Your task to perform on an android device: turn off translation in the chrome app Image 0: 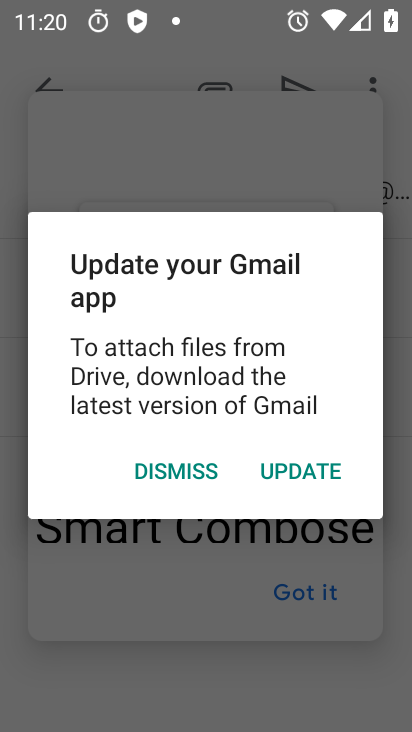
Step 0: click (177, 479)
Your task to perform on an android device: turn off translation in the chrome app Image 1: 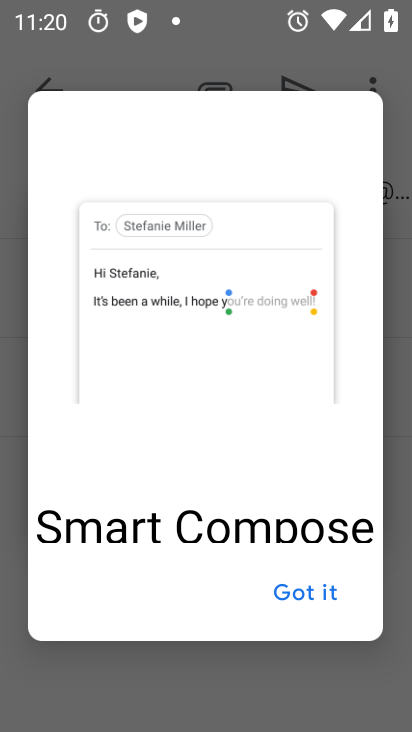
Step 1: click (280, 599)
Your task to perform on an android device: turn off translation in the chrome app Image 2: 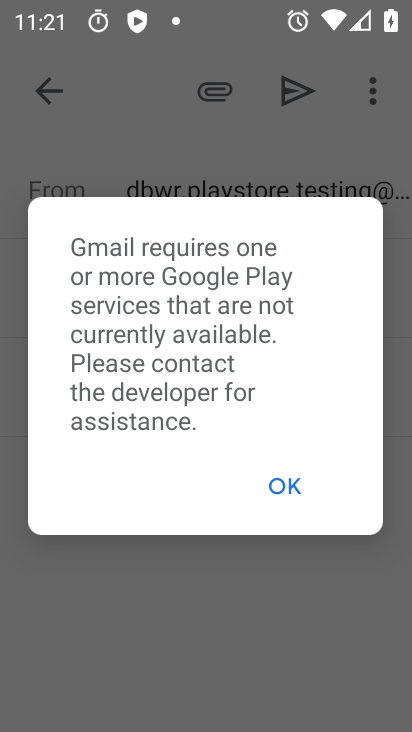
Step 2: click (277, 493)
Your task to perform on an android device: turn off translation in the chrome app Image 3: 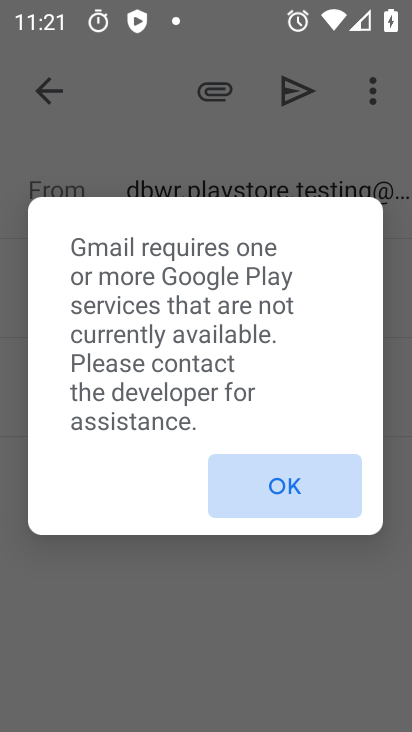
Step 3: click (277, 491)
Your task to perform on an android device: turn off translation in the chrome app Image 4: 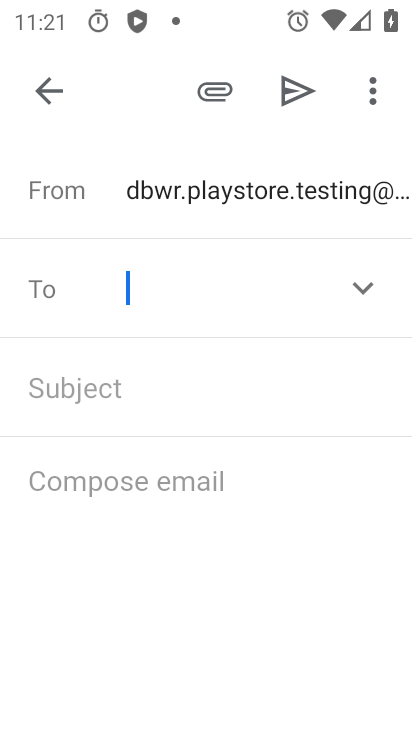
Step 4: click (271, 490)
Your task to perform on an android device: turn off translation in the chrome app Image 5: 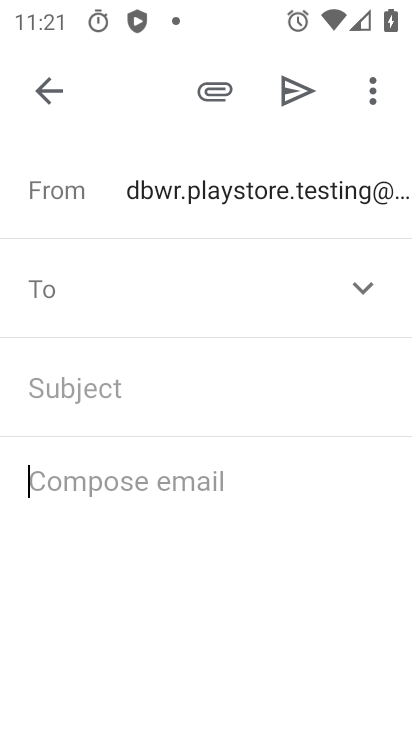
Step 5: click (269, 490)
Your task to perform on an android device: turn off translation in the chrome app Image 6: 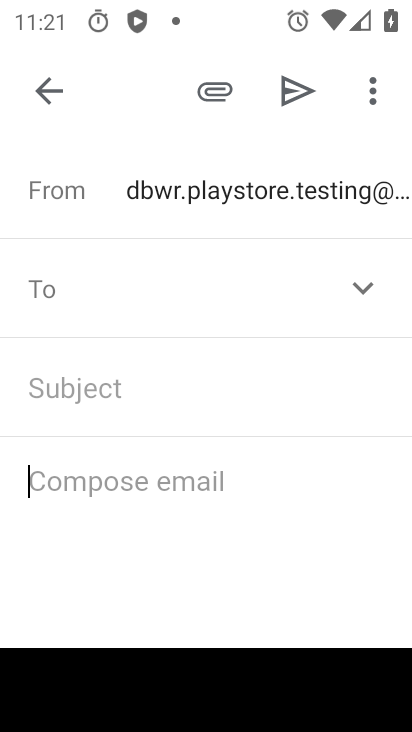
Step 6: click (31, 88)
Your task to perform on an android device: turn off translation in the chrome app Image 7: 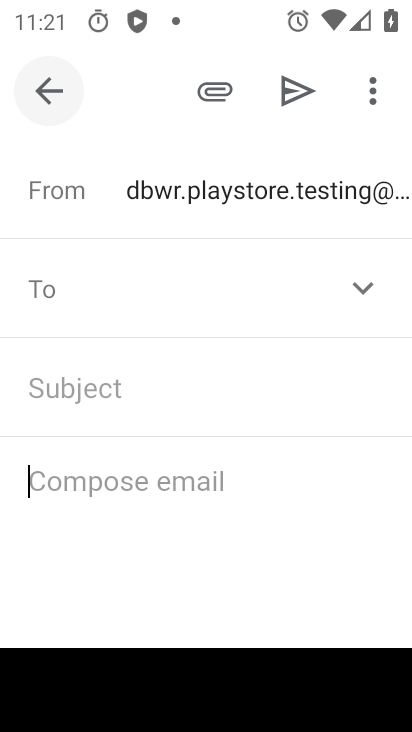
Step 7: click (35, 90)
Your task to perform on an android device: turn off translation in the chrome app Image 8: 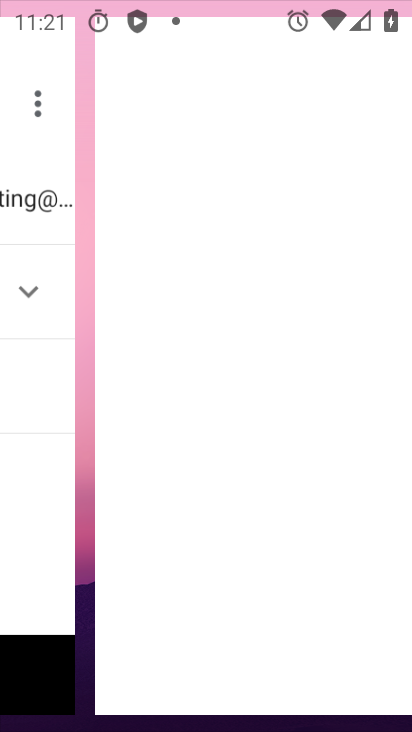
Step 8: click (35, 89)
Your task to perform on an android device: turn off translation in the chrome app Image 9: 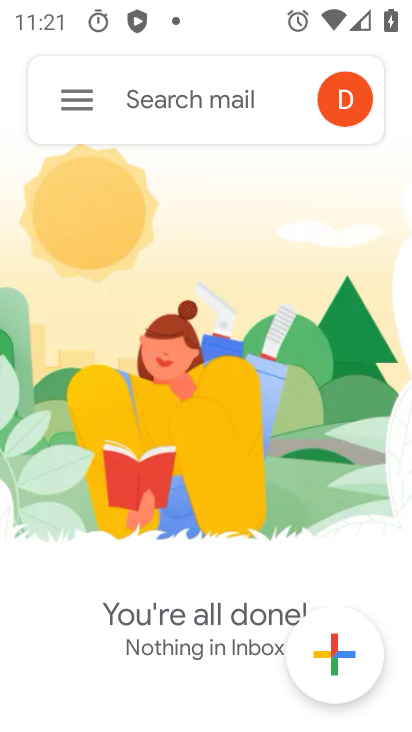
Step 9: click (69, 105)
Your task to perform on an android device: turn off translation in the chrome app Image 10: 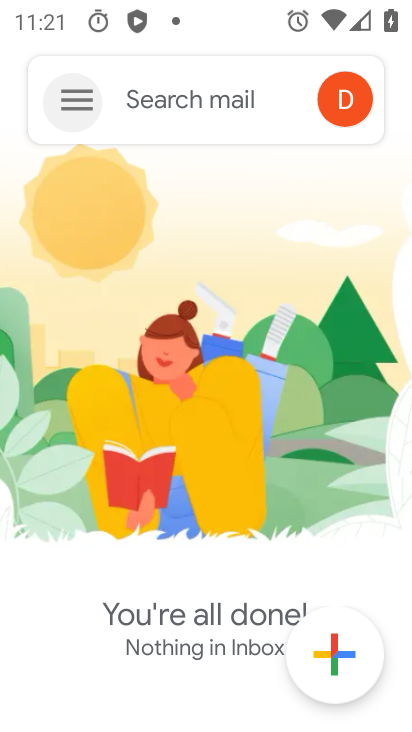
Step 10: click (69, 105)
Your task to perform on an android device: turn off translation in the chrome app Image 11: 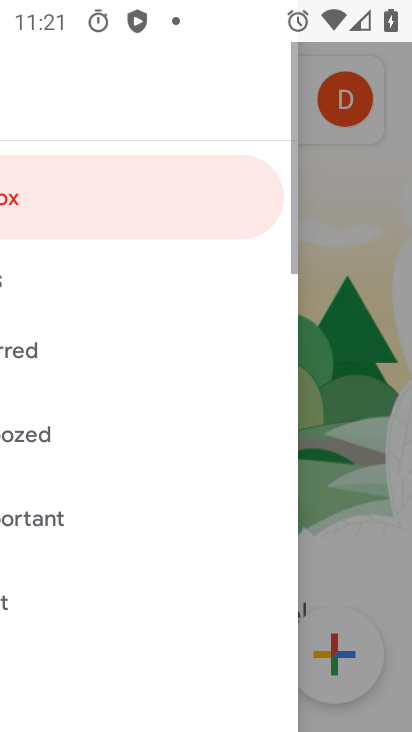
Step 11: click (69, 105)
Your task to perform on an android device: turn off translation in the chrome app Image 12: 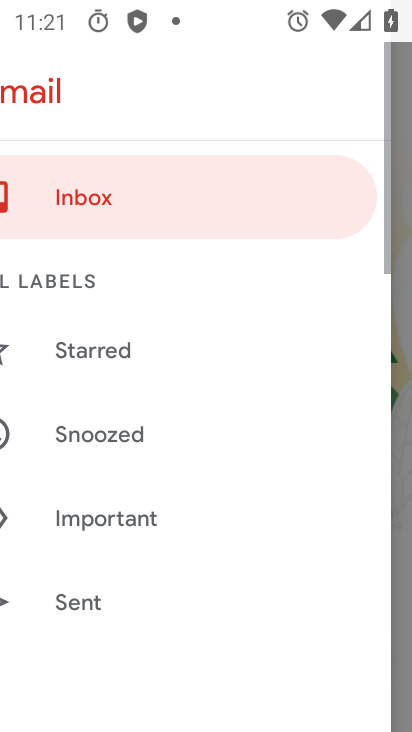
Step 12: click (69, 105)
Your task to perform on an android device: turn off translation in the chrome app Image 13: 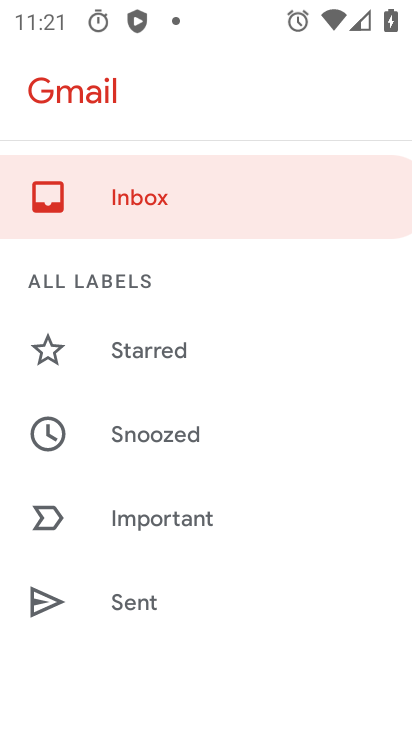
Step 13: drag from (69, 105) to (115, 138)
Your task to perform on an android device: turn off translation in the chrome app Image 14: 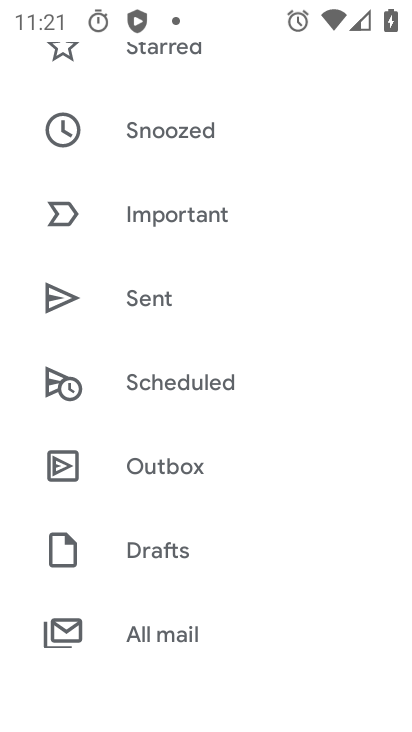
Step 14: drag from (188, 601) to (105, 212)
Your task to perform on an android device: turn off translation in the chrome app Image 15: 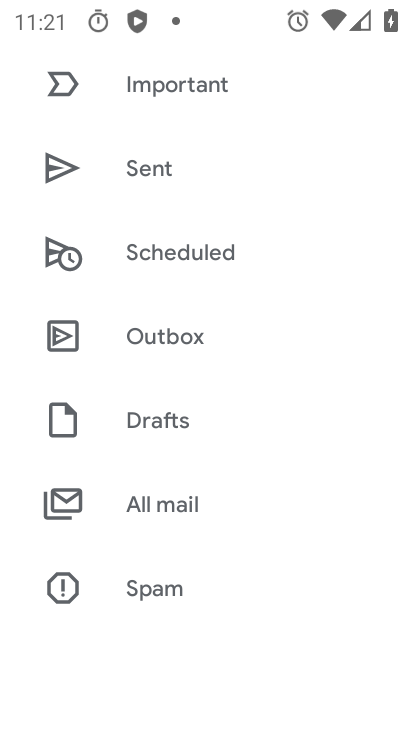
Step 15: press back button
Your task to perform on an android device: turn off translation in the chrome app Image 16: 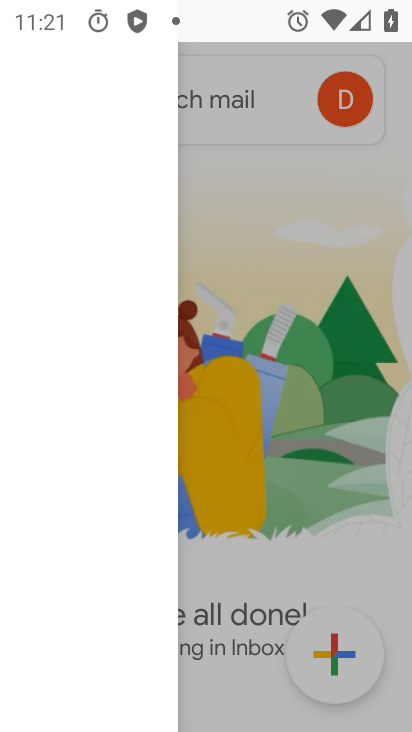
Step 16: press back button
Your task to perform on an android device: turn off translation in the chrome app Image 17: 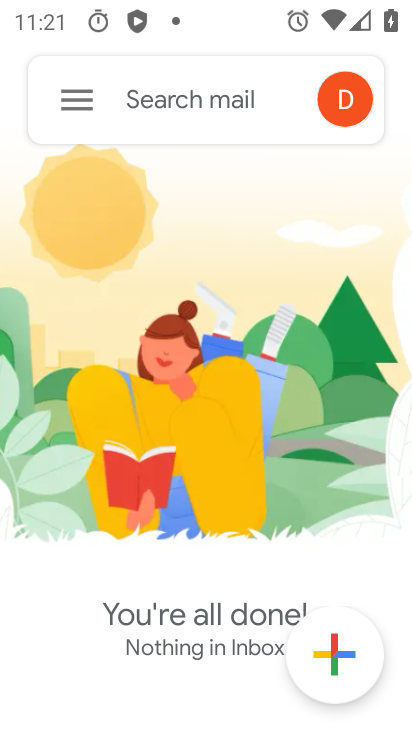
Step 17: press back button
Your task to perform on an android device: turn off translation in the chrome app Image 18: 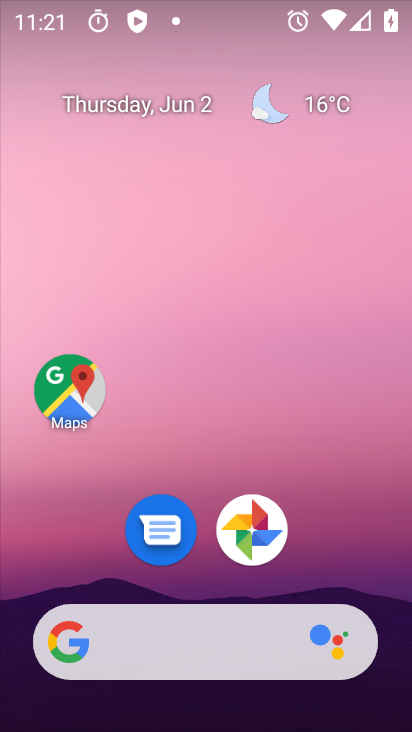
Step 18: drag from (195, 592) to (185, 3)
Your task to perform on an android device: turn off translation in the chrome app Image 19: 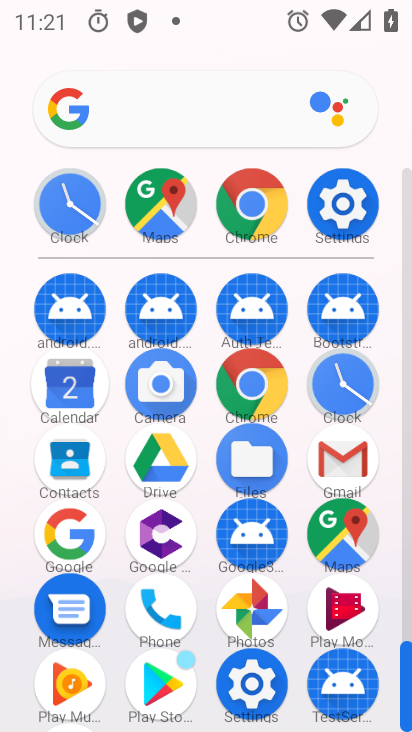
Step 19: click (250, 194)
Your task to perform on an android device: turn off translation in the chrome app Image 20: 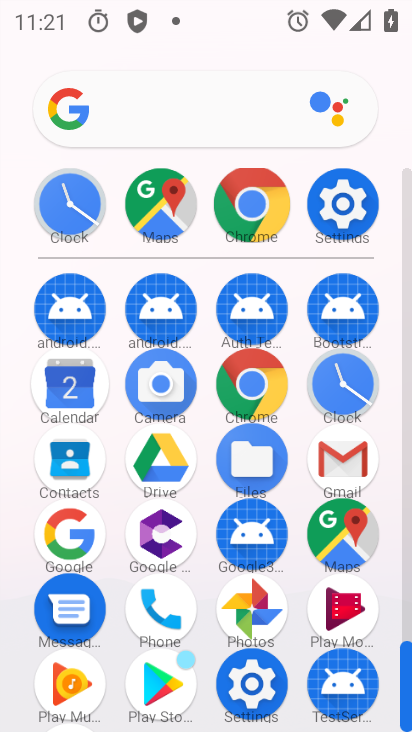
Step 20: click (250, 194)
Your task to perform on an android device: turn off translation in the chrome app Image 21: 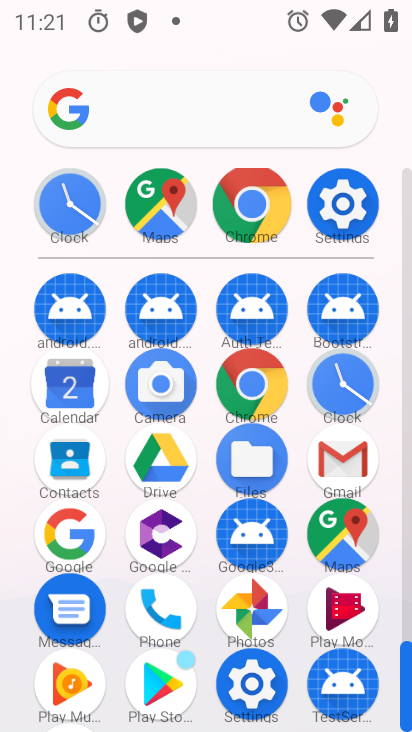
Step 21: click (247, 206)
Your task to perform on an android device: turn off translation in the chrome app Image 22: 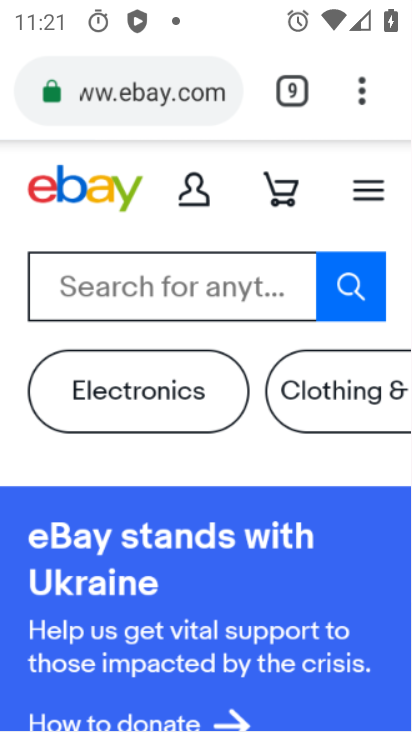
Step 22: click (247, 206)
Your task to perform on an android device: turn off translation in the chrome app Image 23: 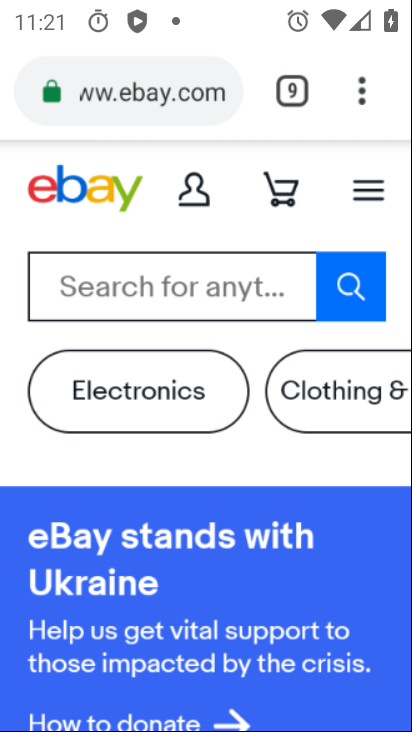
Step 23: click (355, 100)
Your task to perform on an android device: turn off translation in the chrome app Image 24: 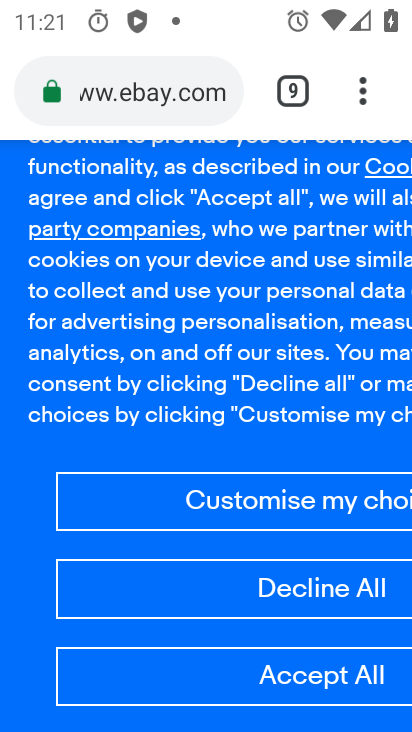
Step 24: click (355, 100)
Your task to perform on an android device: turn off translation in the chrome app Image 25: 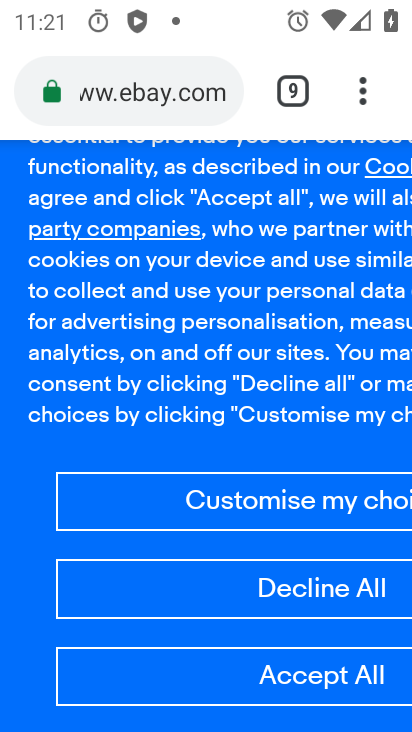
Step 25: drag from (355, 100) to (362, 135)
Your task to perform on an android device: turn off translation in the chrome app Image 26: 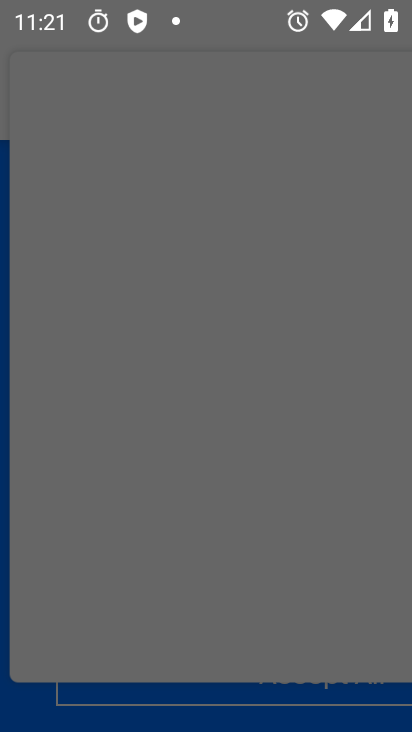
Step 26: drag from (358, 94) to (319, 495)
Your task to perform on an android device: turn off translation in the chrome app Image 27: 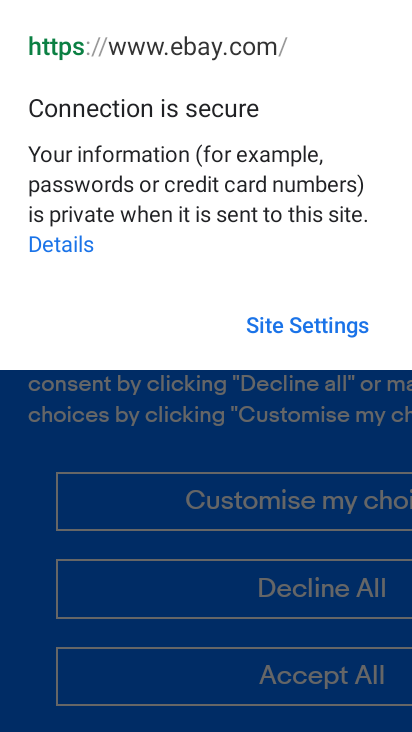
Step 27: press back button
Your task to perform on an android device: turn off translation in the chrome app Image 28: 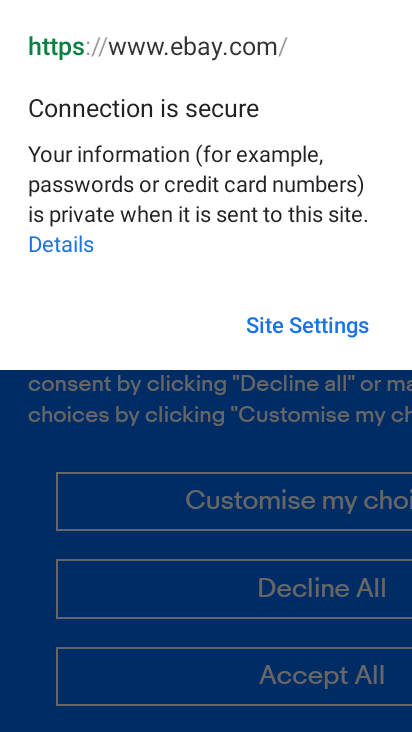
Step 28: press back button
Your task to perform on an android device: turn off translation in the chrome app Image 29: 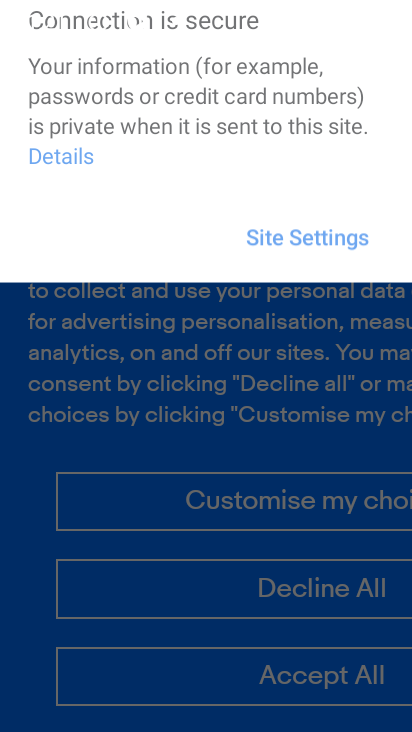
Step 29: press back button
Your task to perform on an android device: turn off translation in the chrome app Image 30: 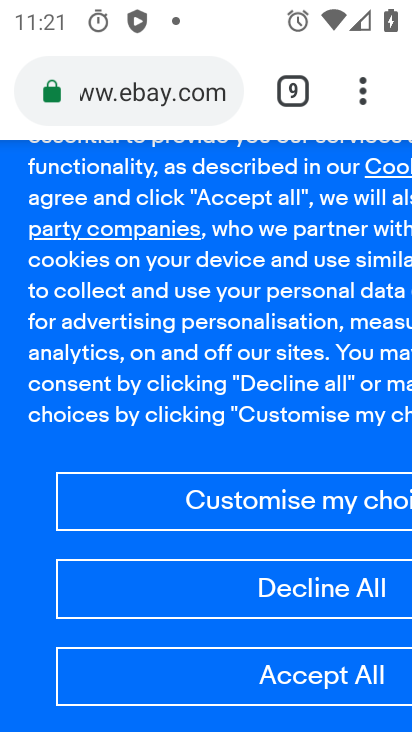
Step 30: press back button
Your task to perform on an android device: turn off translation in the chrome app Image 31: 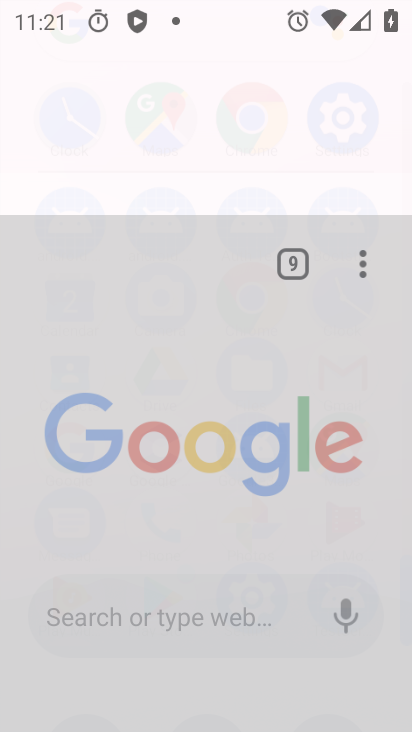
Step 31: press home button
Your task to perform on an android device: turn off translation in the chrome app Image 32: 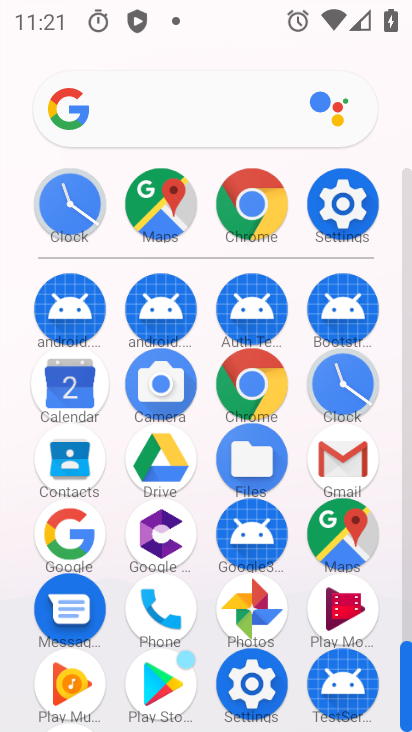
Step 32: press home button
Your task to perform on an android device: turn off translation in the chrome app Image 33: 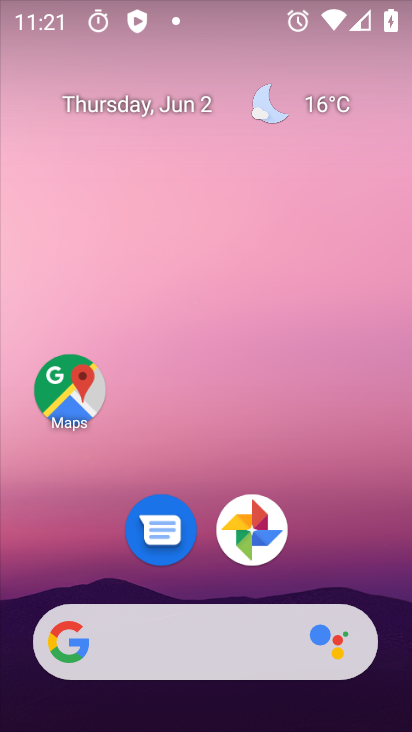
Step 33: drag from (269, 662) to (125, 72)
Your task to perform on an android device: turn off translation in the chrome app Image 34: 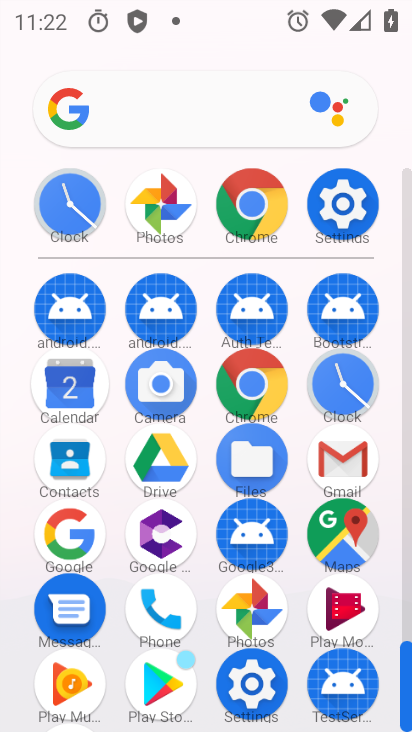
Step 34: click (244, 208)
Your task to perform on an android device: turn off translation in the chrome app Image 35: 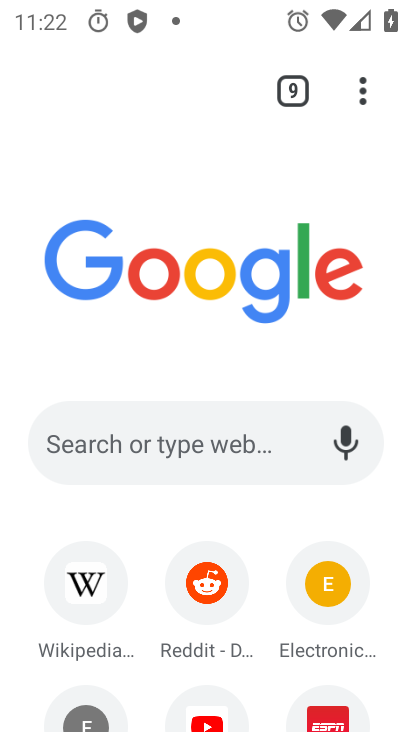
Step 35: drag from (358, 87) to (73, 559)
Your task to perform on an android device: turn off translation in the chrome app Image 36: 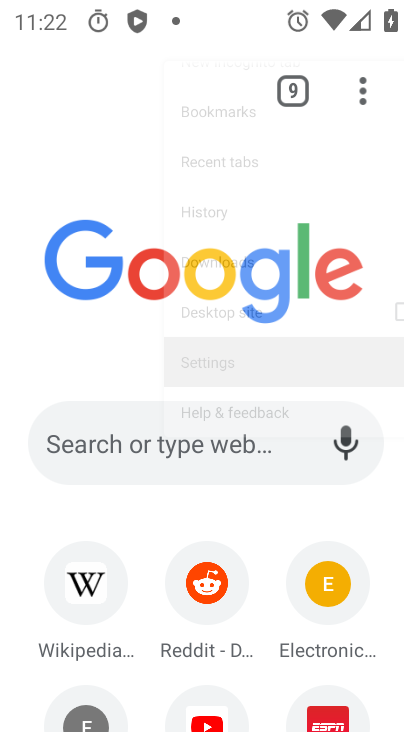
Step 36: click (73, 559)
Your task to perform on an android device: turn off translation in the chrome app Image 37: 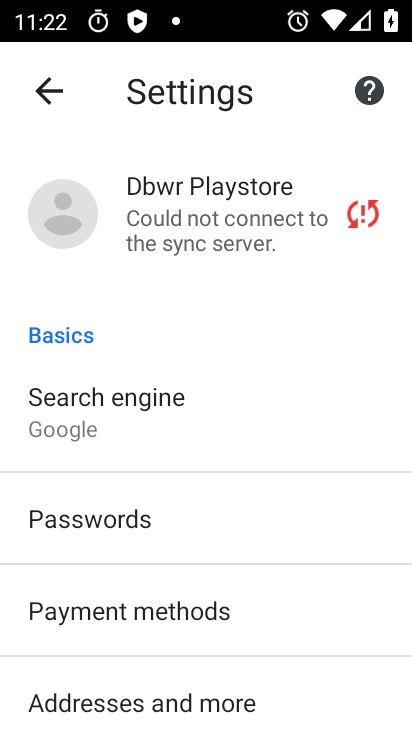
Step 37: drag from (200, 494) to (177, 204)
Your task to perform on an android device: turn off translation in the chrome app Image 38: 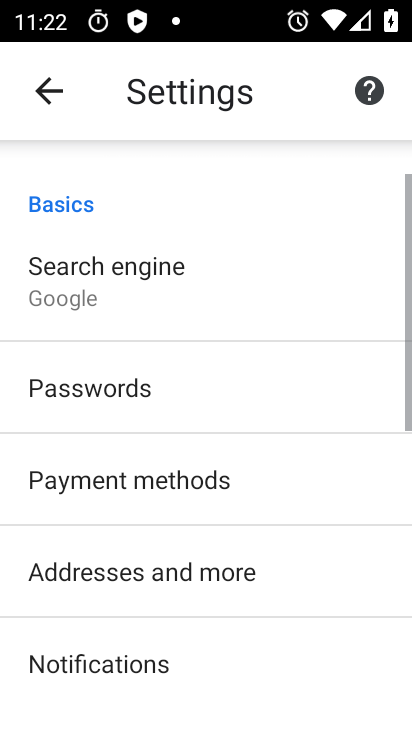
Step 38: drag from (177, 416) to (152, 76)
Your task to perform on an android device: turn off translation in the chrome app Image 39: 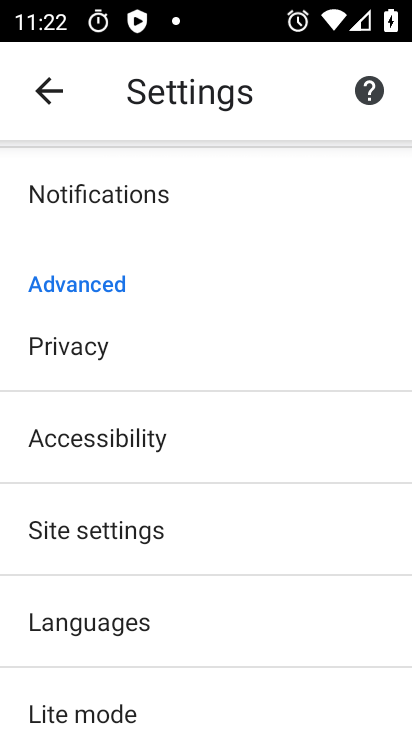
Step 39: click (65, 627)
Your task to perform on an android device: turn off translation in the chrome app Image 40: 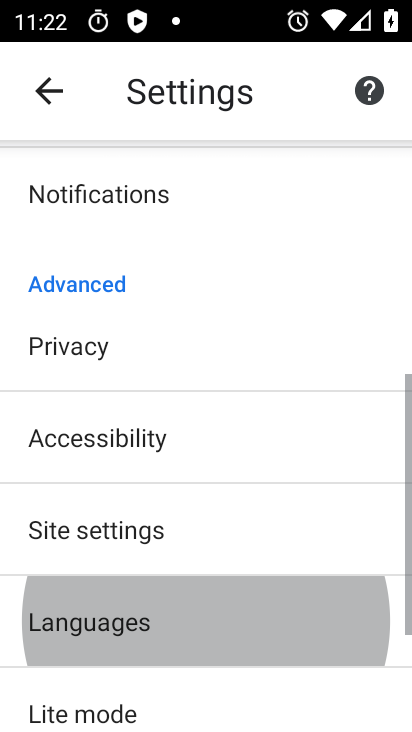
Step 40: click (74, 620)
Your task to perform on an android device: turn off translation in the chrome app Image 41: 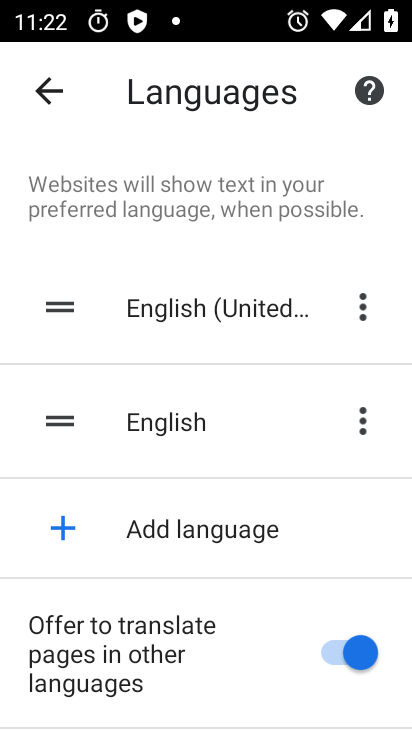
Step 41: click (361, 659)
Your task to perform on an android device: turn off translation in the chrome app Image 42: 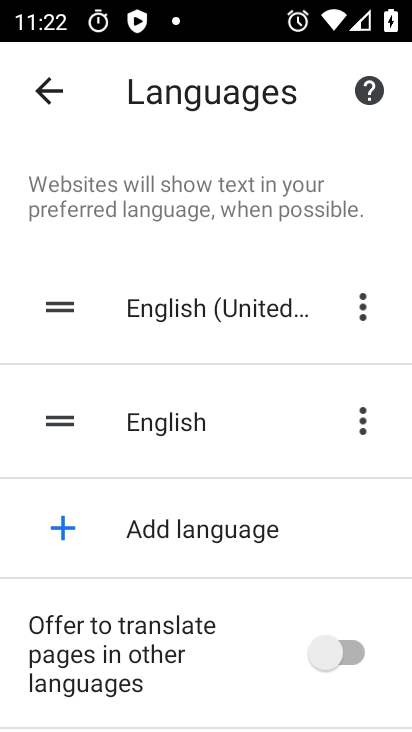
Step 42: task complete